Your task to perform on an android device: Go to notification settings Image 0: 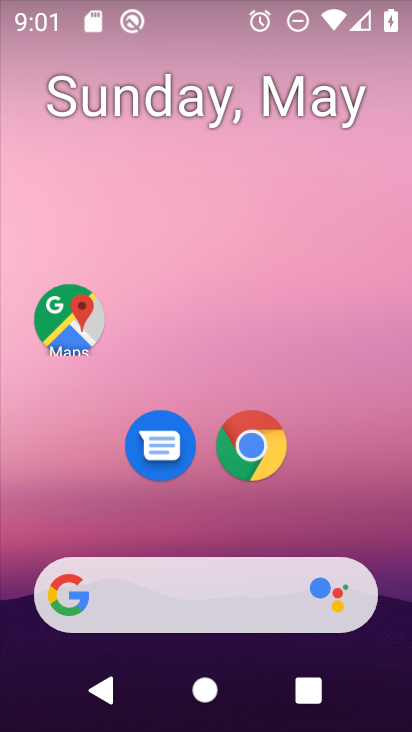
Step 0: drag from (296, 598) to (253, 155)
Your task to perform on an android device: Go to notification settings Image 1: 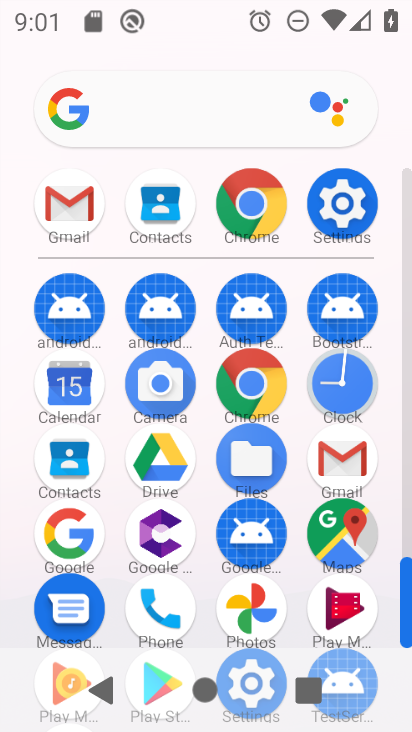
Step 1: click (345, 214)
Your task to perform on an android device: Go to notification settings Image 2: 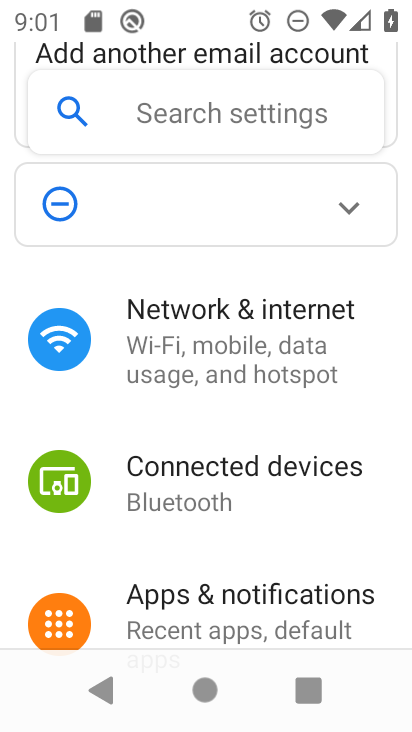
Step 2: click (241, 619)
Your task to perform on an android device: Go to notification settings Image 3: 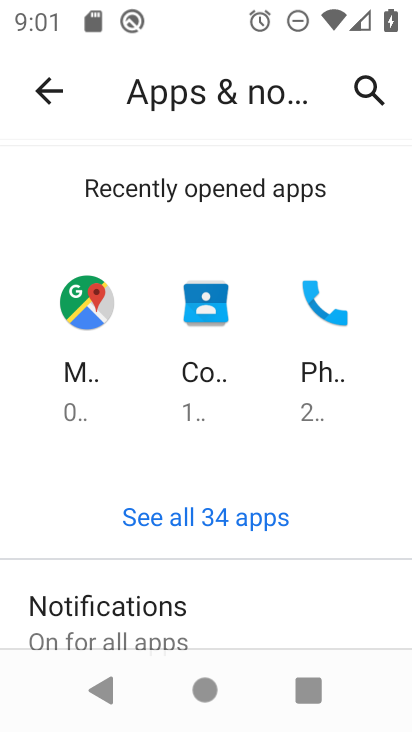
Step 3: task complete